Your task to perform on an android device: Open Maps and search for coffee Image 0: 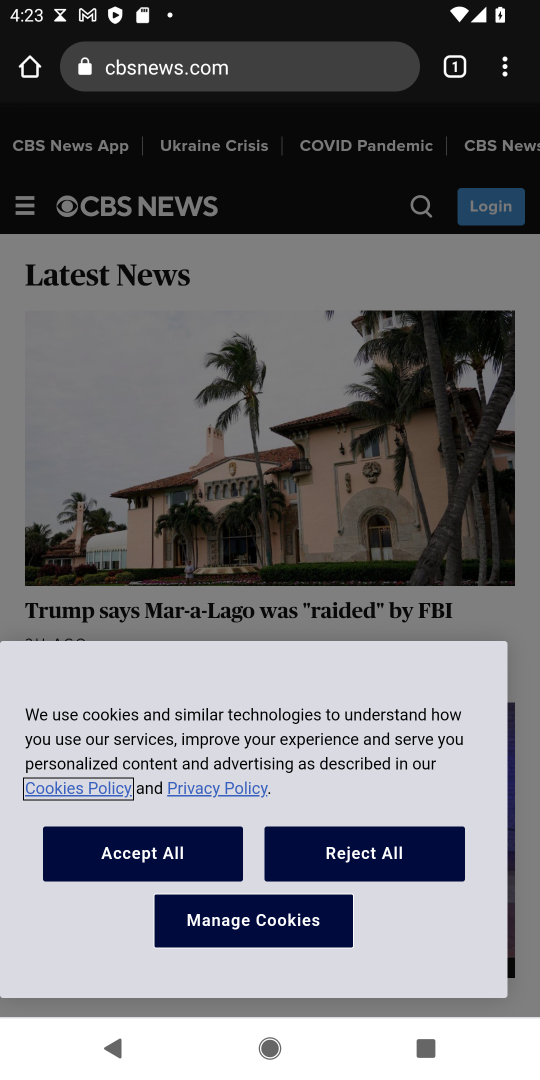
Step 0: press home button
Your task to perform on an android device: Open Maps and search for coffee Image 1: 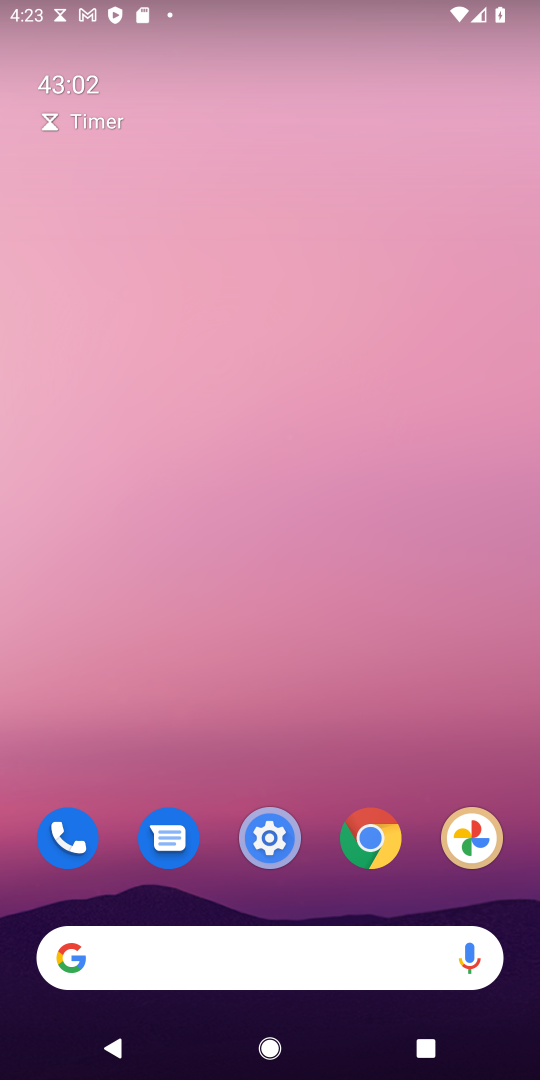
Step 1: drag from (320, 762) to (274, 126)
Your task to perform on an android device: Open Maps and search for coffee Image 2: 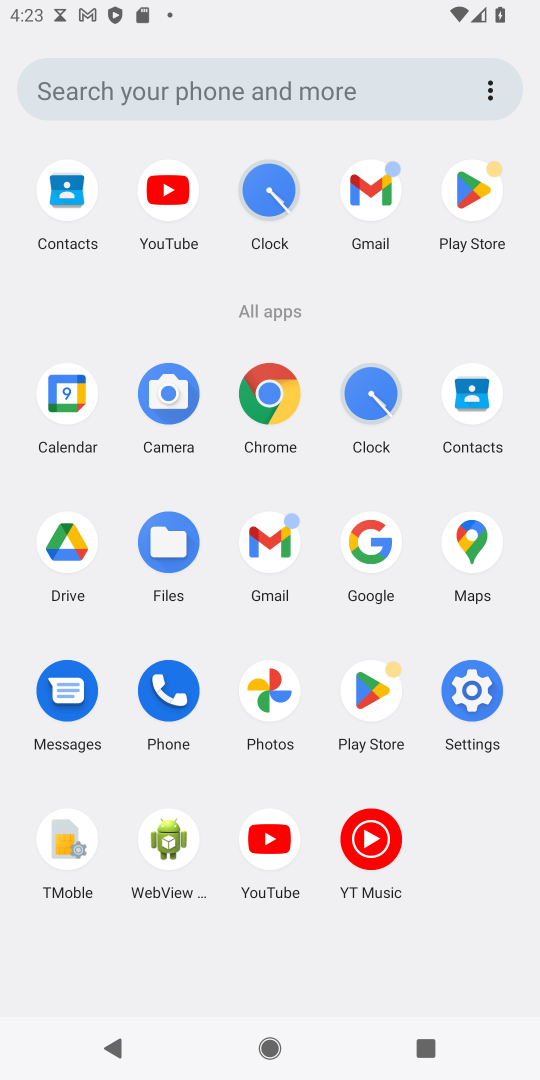
Step 2: click (471, 534)
Your task to perform on an android device: Open Maps and search for coffee Image 3: 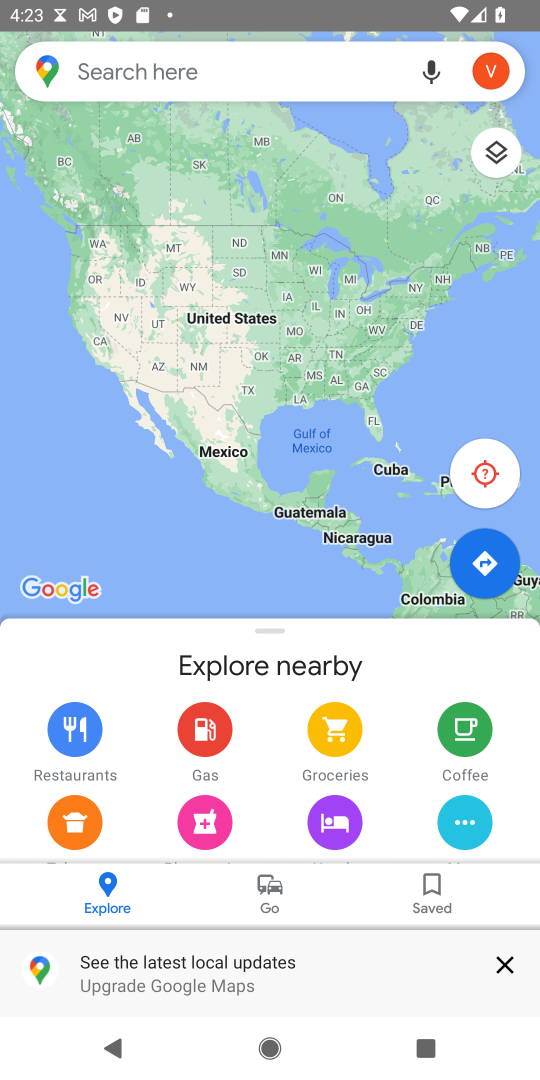
Step 3: click (172, 64)
Your task to perform on an android device: Open Maps and search for coffee Image 4: 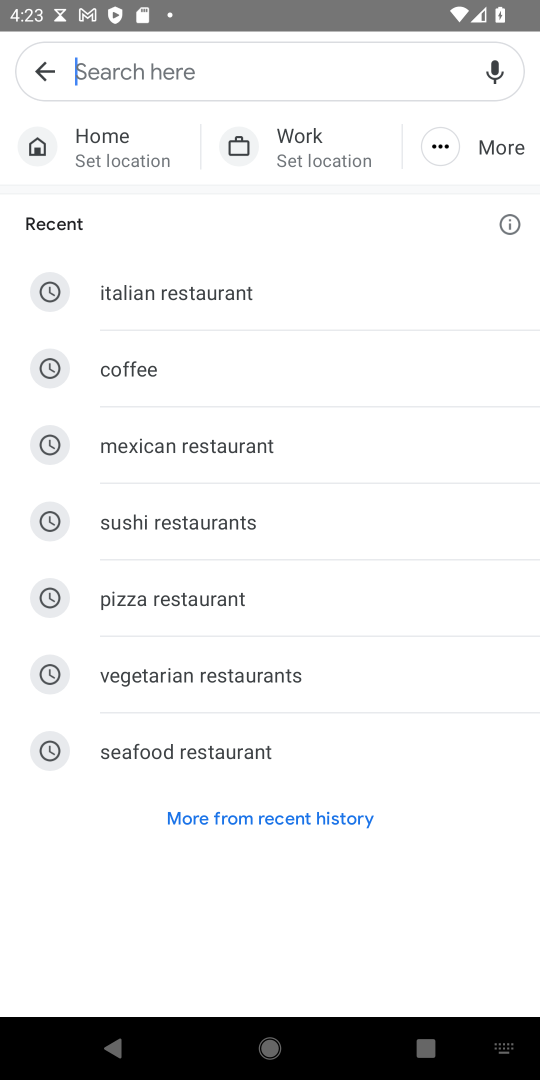
Step 4: click (195, 375)
Your task to perform on an android device: Open Maps and search for coffee Image 5: 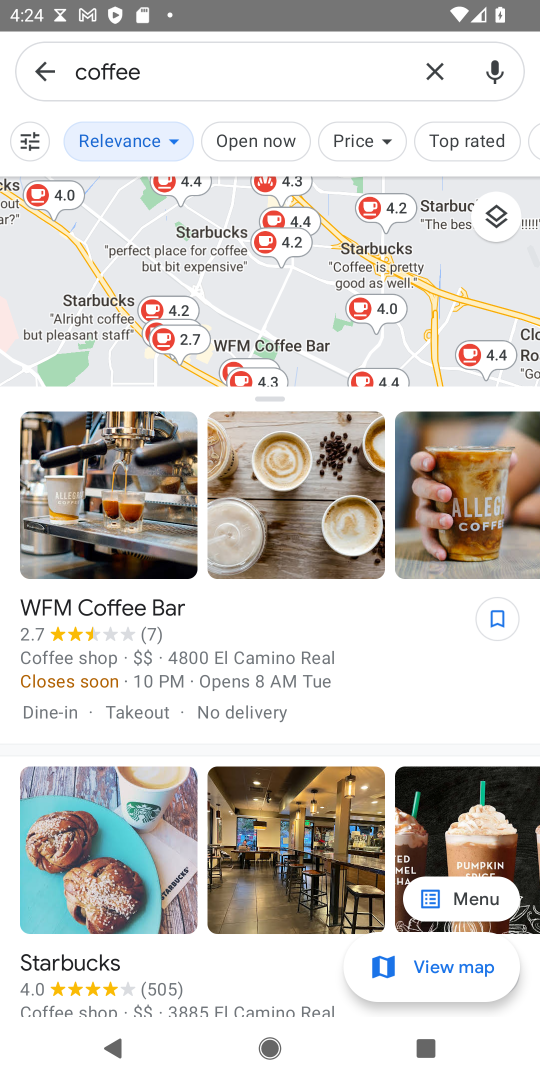
Step 5: task complete